Your task to perform on an android device: Search for vegetarian restaurants on Maps Image 0: 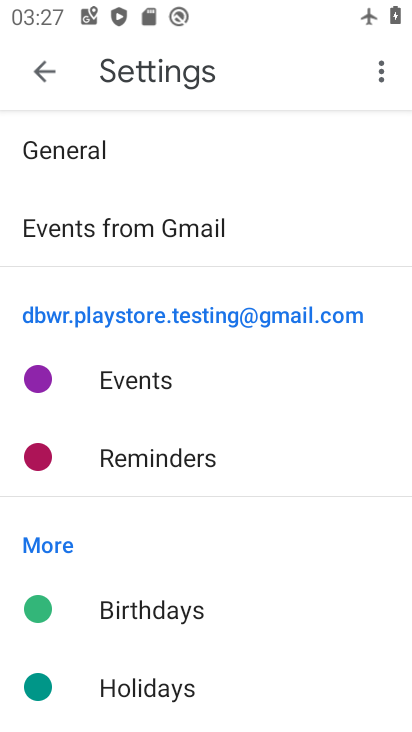
Step 0: press back button
Your task to perform on an android device: Search for vegetarian restaurants on Maps Image 1: 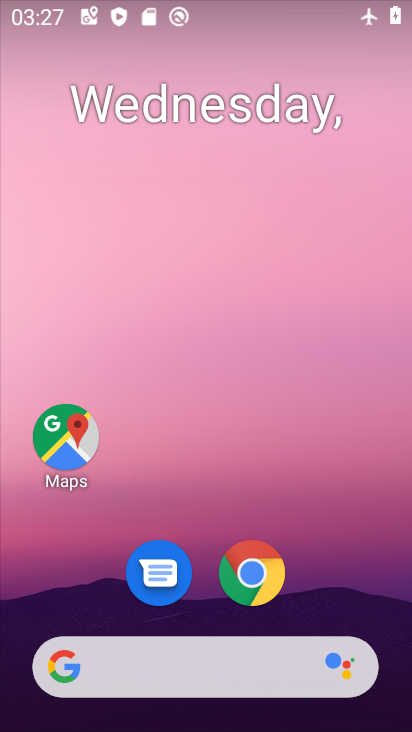
Step 1: click (68, 435)
Your task to perform on an android device: Search for vegetarian restaurants on Maps Image 2: 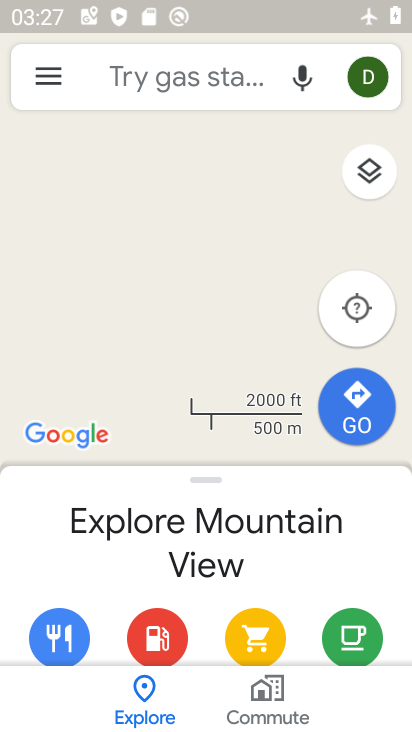
Step 2: click (207, 81)
Your task to perform on an android device: Search for vegetarian restaurants on Maps Image 3: 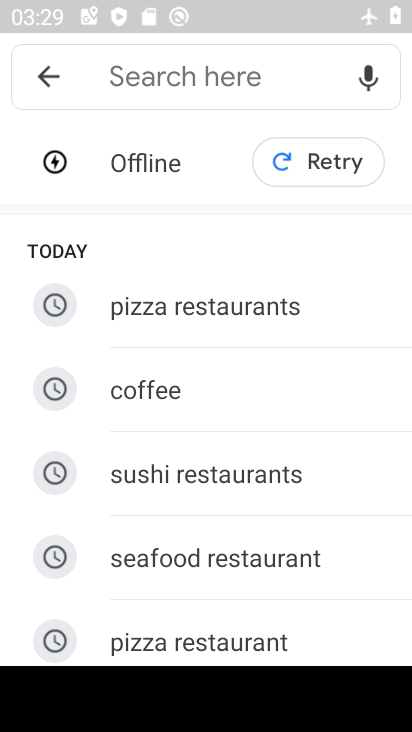
Step 3: type "vegetarian restaurants"
Your task to perform on an android device: Search for vegetarian restaurants on Maps Image 4: 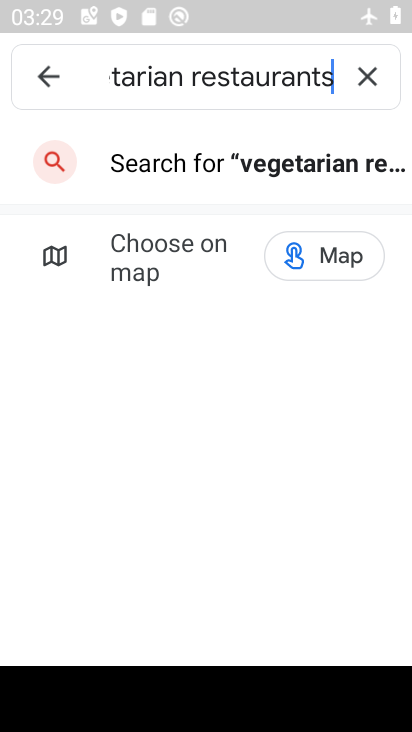
Step 4: task complete